Your task to perform on an android device: open chrome privacy settings Image 0: 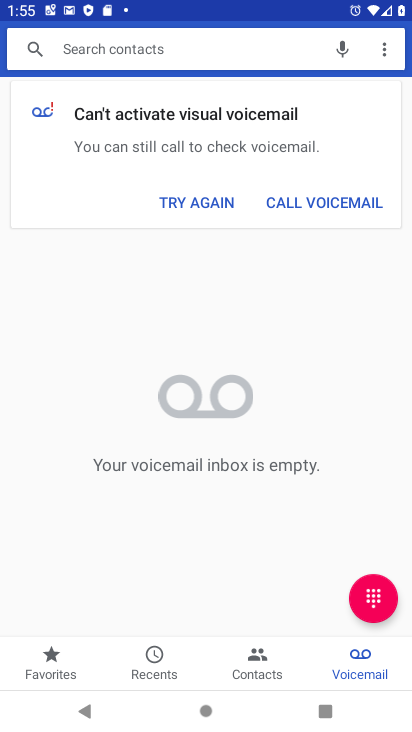
Step 0: press home button
Your task to perform on an android device: open chrome privacy settings Image 1: 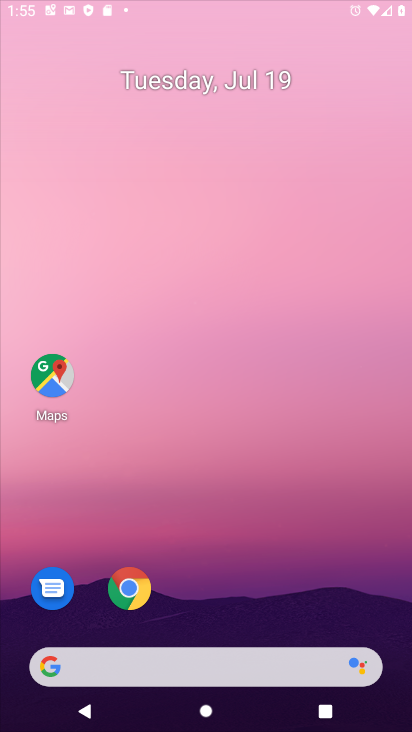
Step 1: drag from (392, 656) to (258, 162)
Your task to perform on an android device: open chrome privacy settings Image 2: 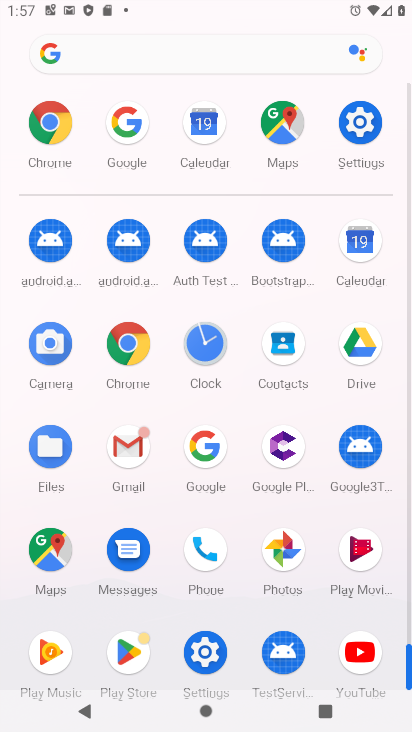
Step 2: click (133, 313)
Your task to perform on an android device: open chrome privacy settings Image 3: 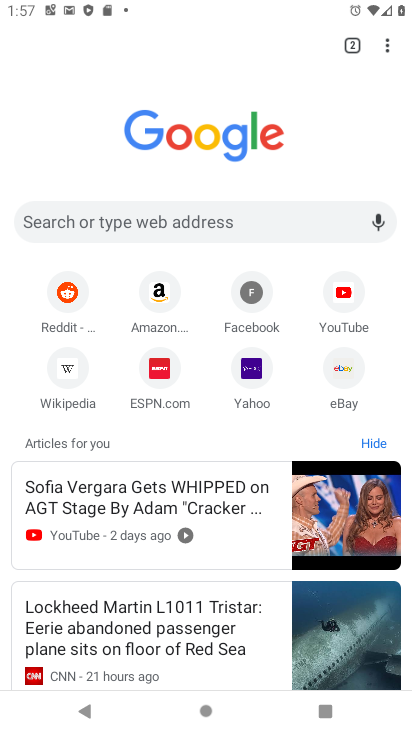
Step 3: click (389, 48)
Your task to perform on an android device: open chrome privacy settings Image 4: 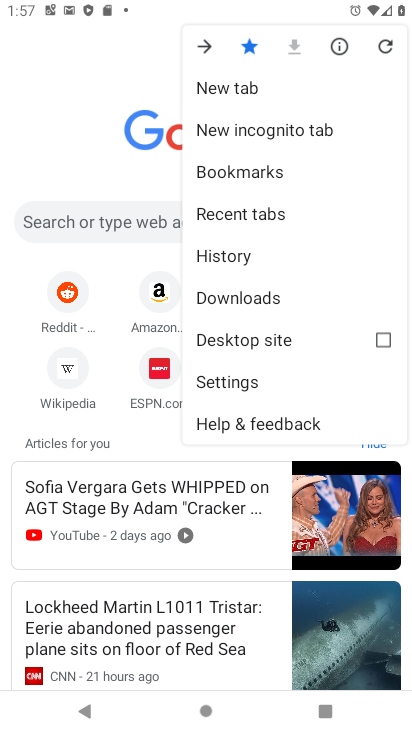
Step 4: click (226, 380)
Your task to perform on an android device: open chrome privacy settings Image 5: 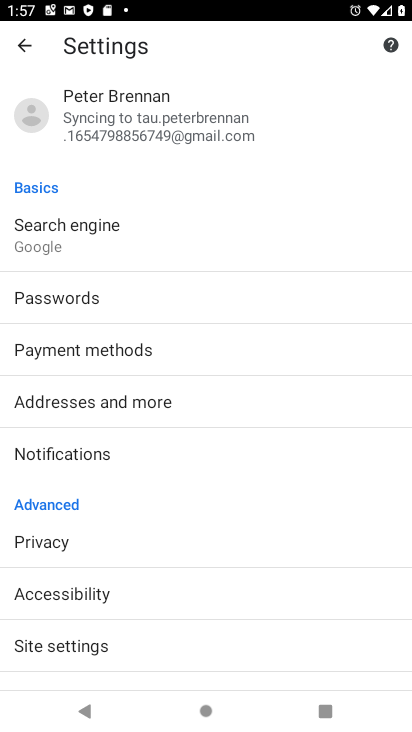
Step 5: click (73, 539)
Your task to perform on an android device: open chrome privacy settings Image 6: 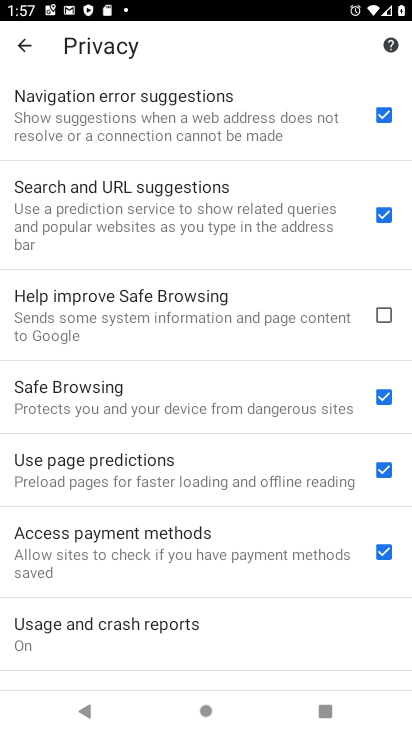
Step 6: task complete